Your task to perform on an android device: What is the recent news? Image 0: 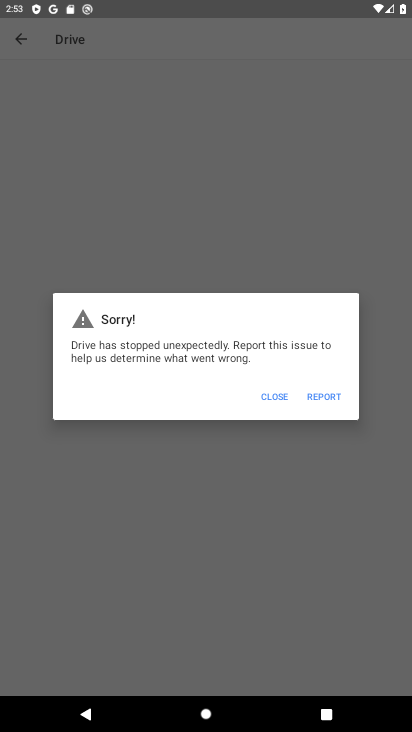
Step 0: press home button
Your task to perform on an android device: What is the recent news? Image 1: 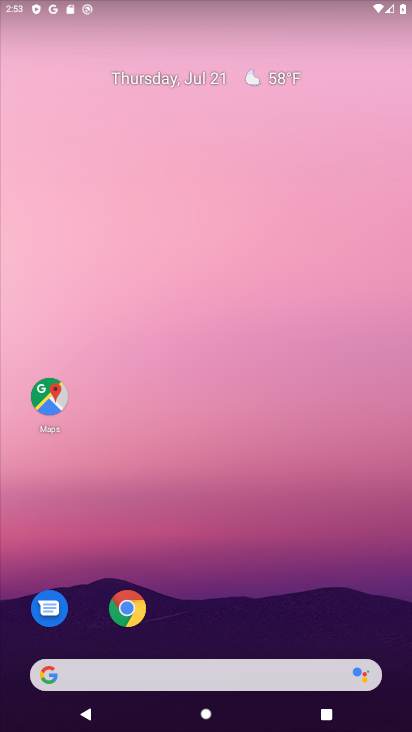
Step 1: task complete